Your task to perform on an android device: Open notification settings Image 0: 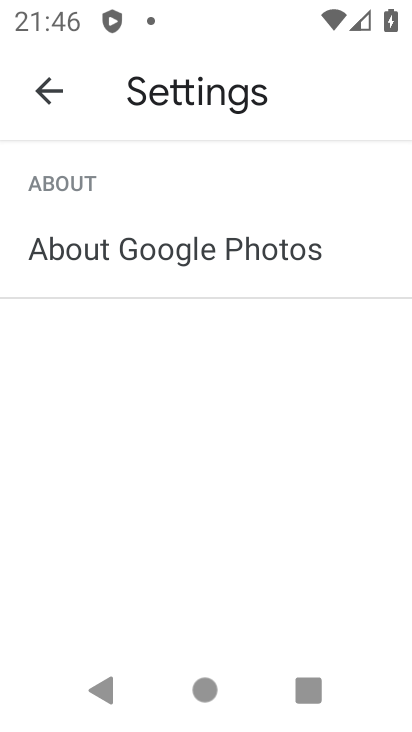
Step 0: press home button
Your task to perform on an android device: Open notification settings Image 1: 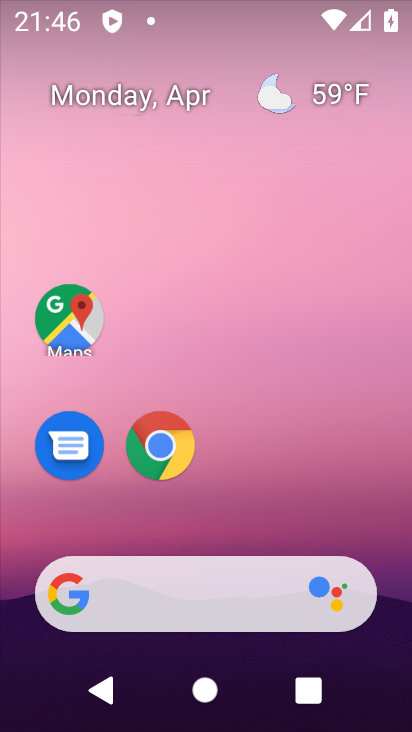
Step 1: drag from (241, 491) to (267, 85)
Your task to perform on an android device: Open notification settings Image 2: 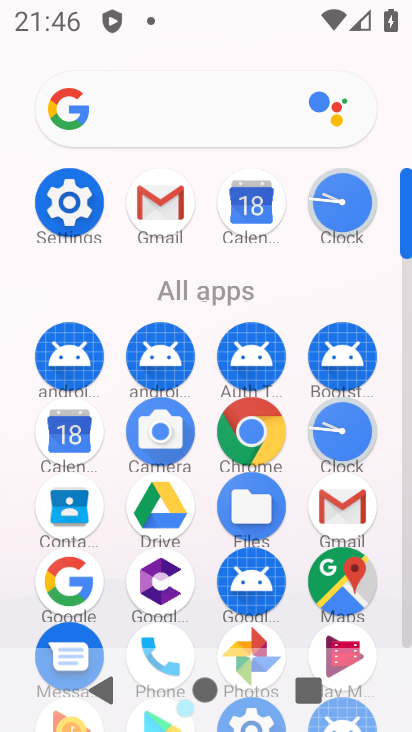
Step 2: click (77, 210)
Your task to perform on an android device: Open notification settings Image 3: 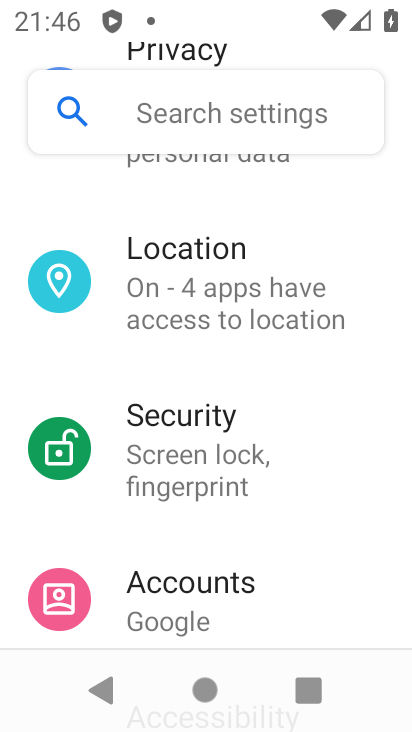
Step 3: drag from (238, 212) to (237, 604)
Your task to perform on an android device: Open notification settings Image 4: 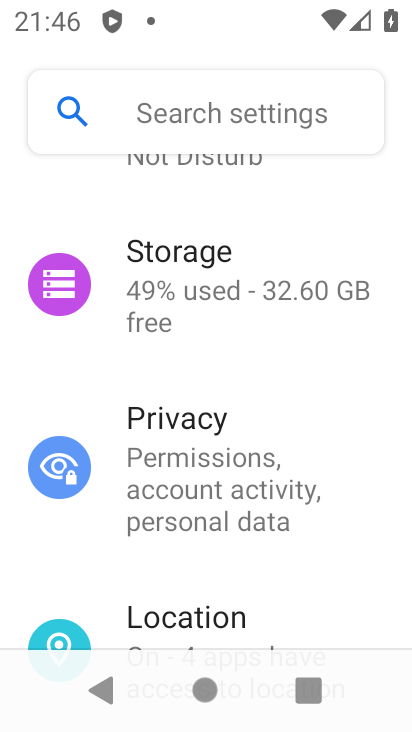
Step 4: drag from (229, 231) to (252, 544)
Your task to perform on an android device: Open notification settings Image 5: 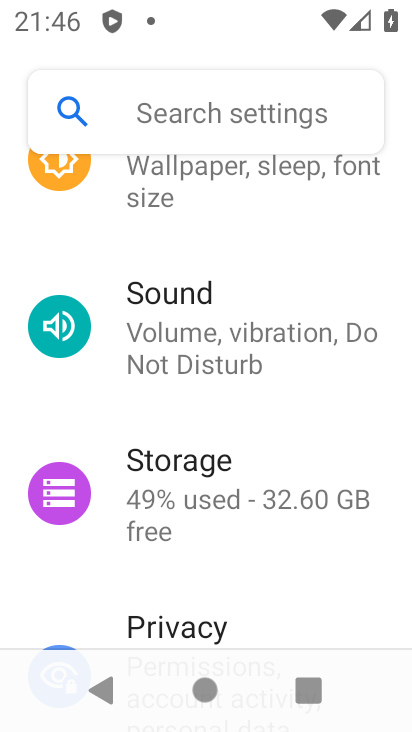
Step 5: drag from (242, 228) to (256, 547)
Your task to perform on an android device: Open notification settings Image 6: 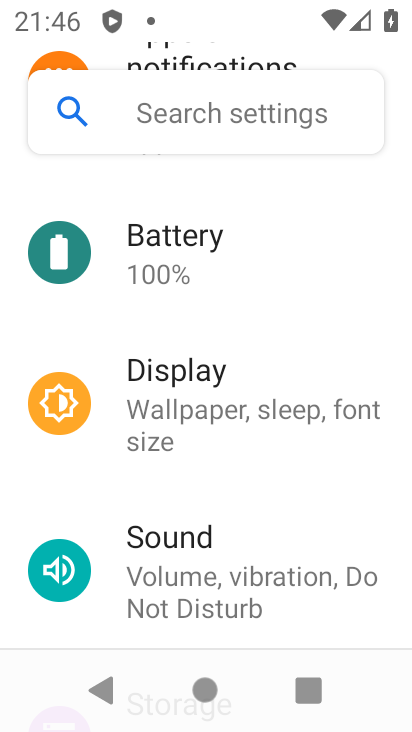
Step 6: drag from (261, 238) to (280, 556)
Your task to perform on an android device: Open notification settings Image 7: 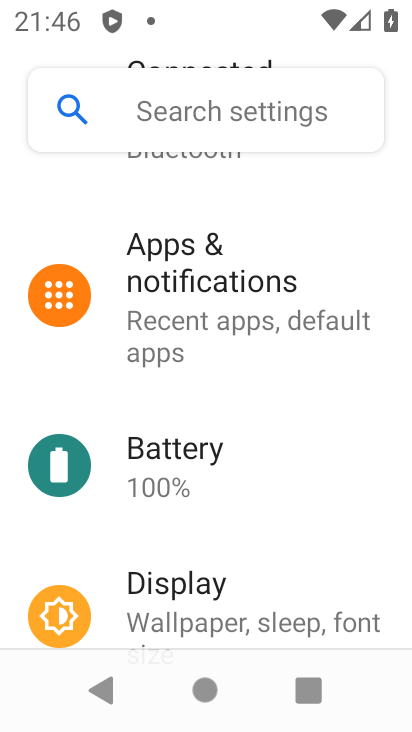
Step 7: click (248, 310)
Your task to perform on an android device: Open notification settings Image 8: 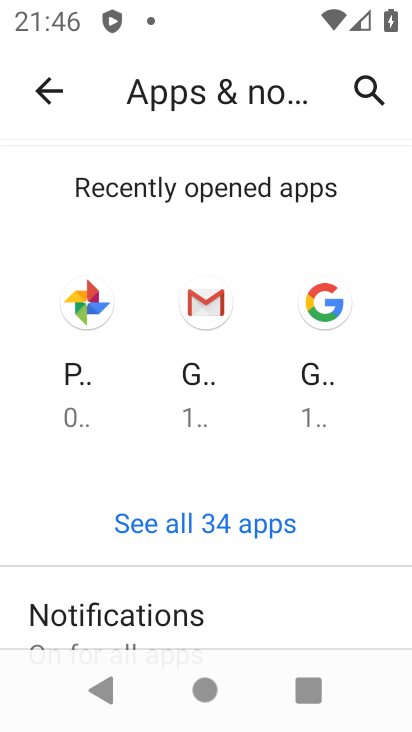
Step 8: task complete